Your task to perform on an android device: Go to sound settings Image 0: 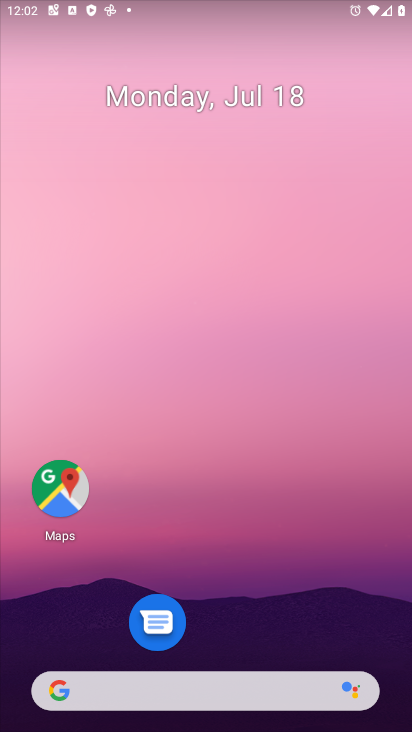
Step 0: drag from (286, 698) to (251, 0)
Your task to perform on an android device: Go to sound settings Image 1: 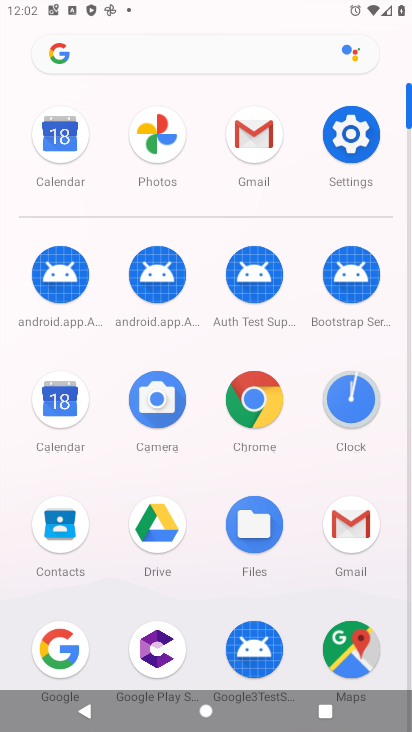
Step 1: click (348, 136)
Your task to perform on an android device: Go to sound settings Image 2: 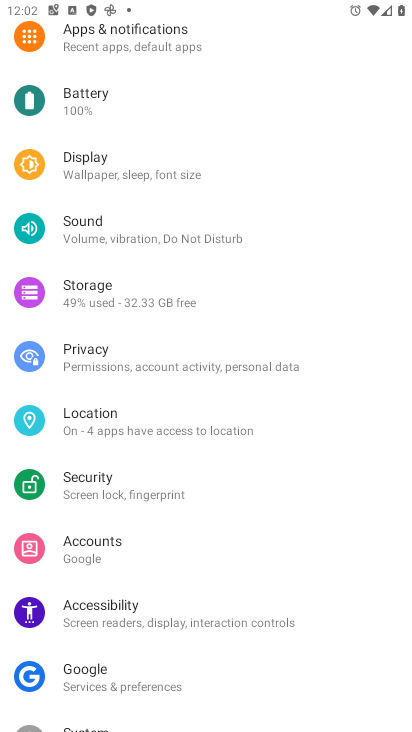
Step 2: click (130, 231)
Your task to perform on an android device: Go to sound settings Image 3: 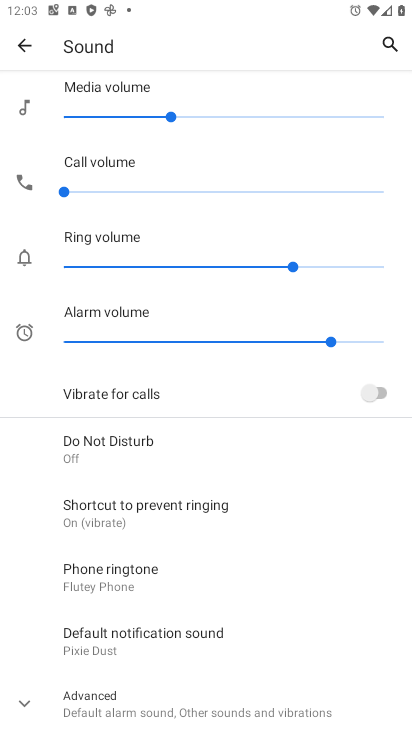
Step 3: task complete